Your task to perform on an android device: Open my contact list Image 0: 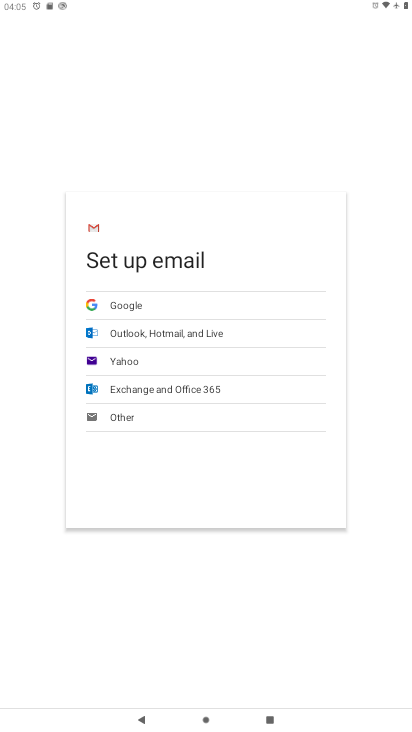
Step 0: press home button
Your task to perform on an android device: Open my contact list Image 1: 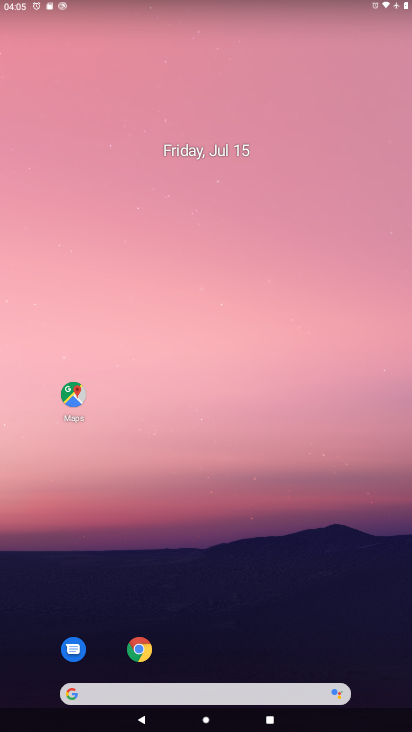
Step 1: drag from (365, 657) to (360, 53)
Your task to perform on an android device: Open my contact list Image 2: 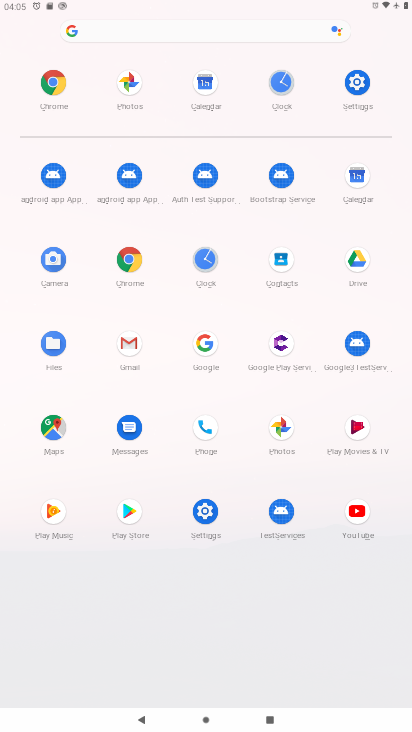
Step 2: click (279, 259)
Your task to perform on an android device: Open my contact list Image 3: 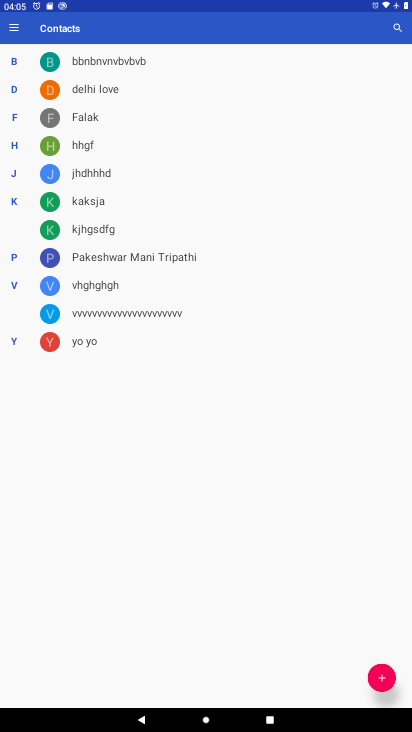
Step 3: task complete